Your task to perform on an android device: Turn off the flashlight Image 0: 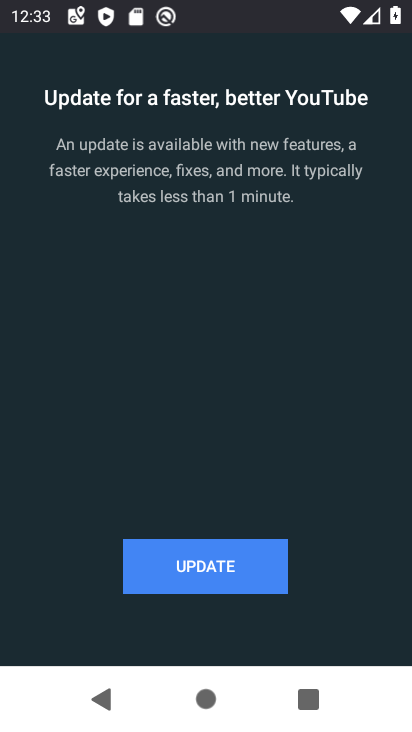
Step 0: press back button
Your task to perform on an android device: Turn off the flashlight Image 1: 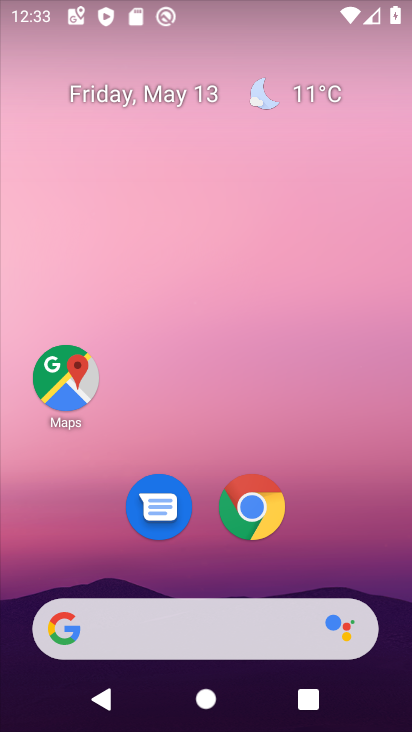
Step 1: drag from (249, 591) to (253, 5)
Your task to perform on an android device: Turn off the flashlight Image 2: 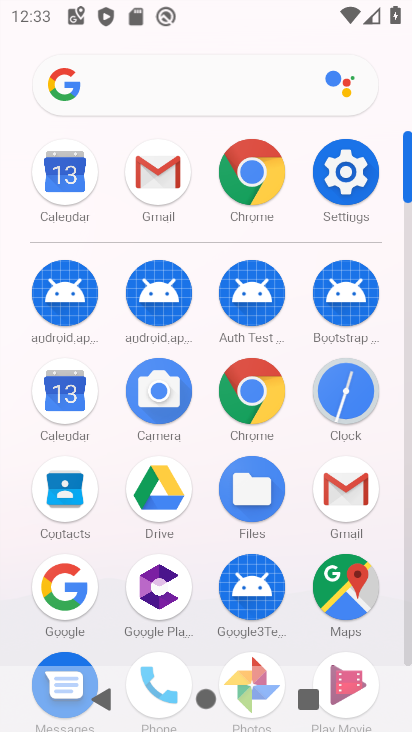
Step 2: click (343, 190)
Your task to perform on an android device: Turn off the flashlight Image 3: 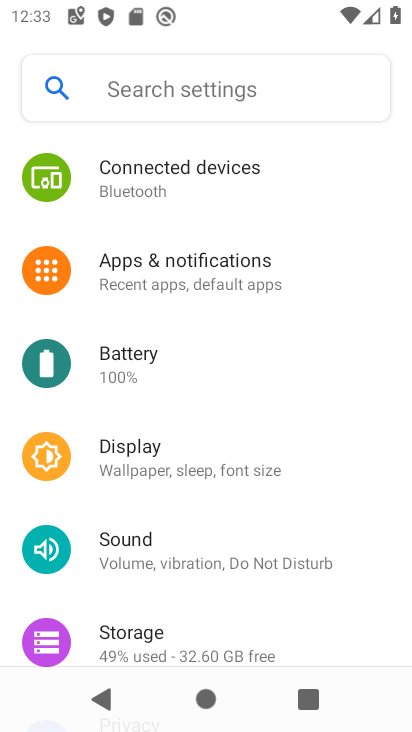
Step 3: click (154, 103)
Your task to perform on an android device: Turn off the flashlight Image 4: 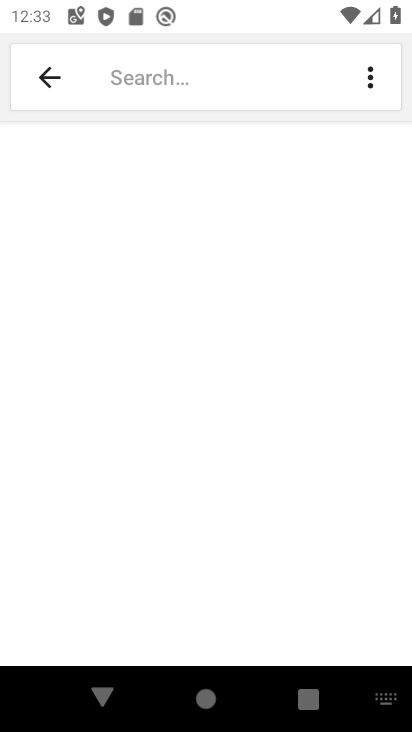
Step 4: type "flashlight"
Your task to perform on an android device: Turn off the flashlight Image 5: 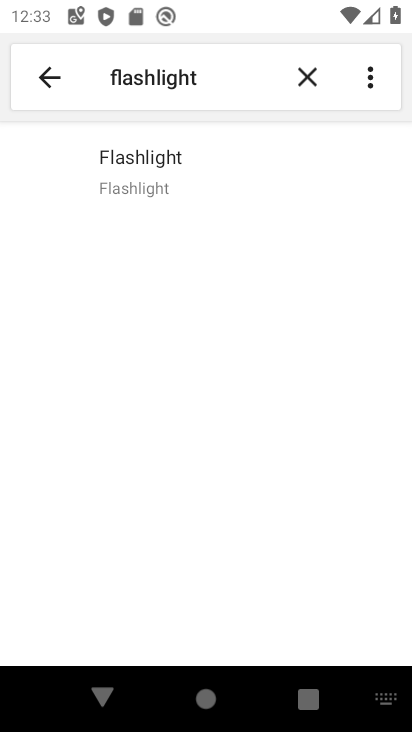
Step 5: task complete